Your task to perform on an android device: Check the weather Image 0: 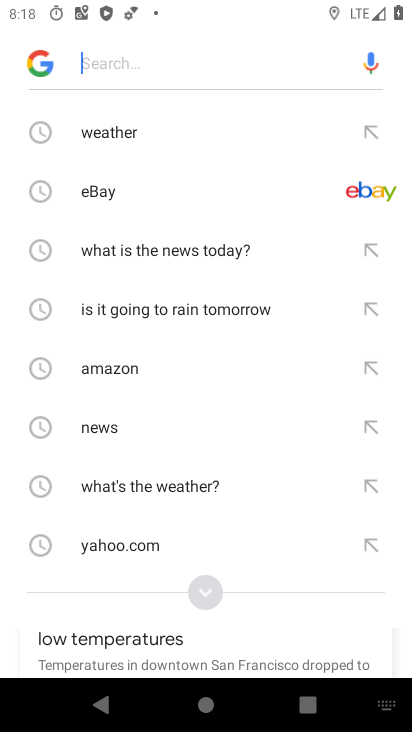
Step 0: click (115, 126)
Your task to perform on an android device: Check the weather Image 1: 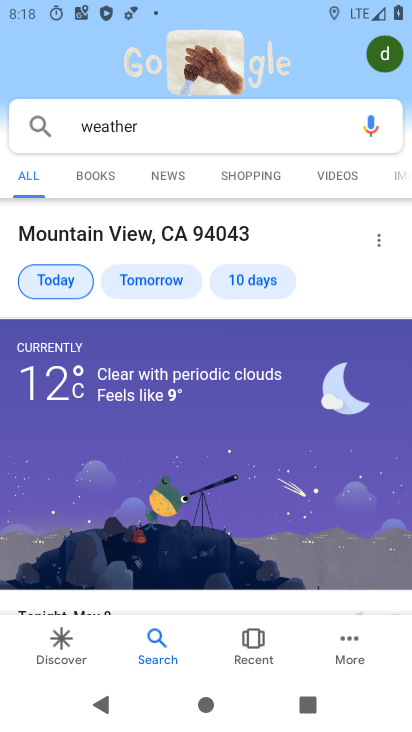
Step 1: task complete